Your task to perform on an android device: Go to eBay Image 0: 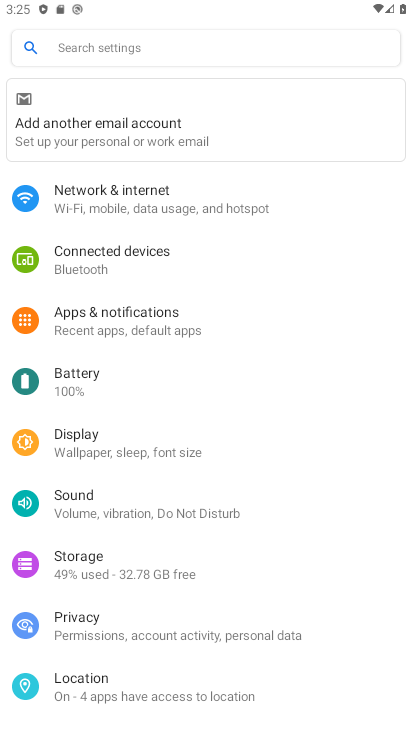
Step 0: press home button
Your task to perform on an android device: Go to eBay Image 1: 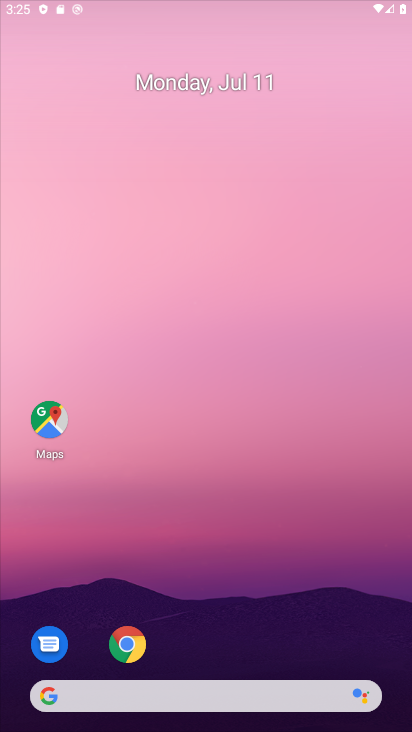
Step 1: drag from (264, 618) to (302, 282)
Your task to perform on an android device: Go to eBay Image 2: 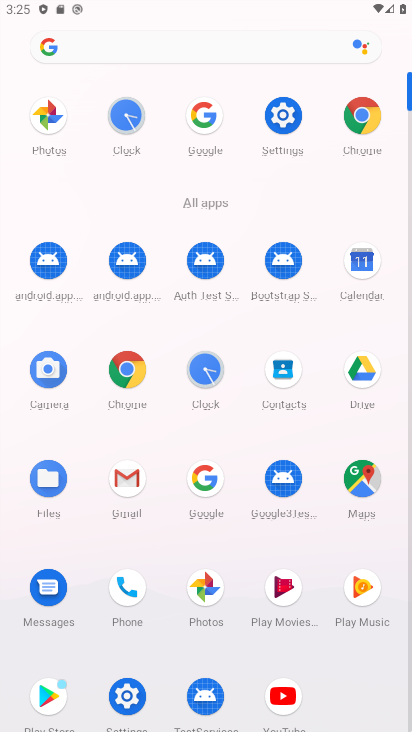
Step 2: click (375, 108)
Your task to perform on an android device: Go to eBay Image 3: 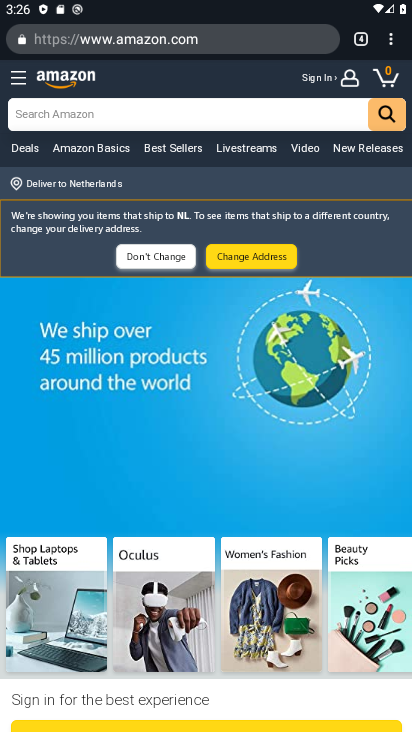
Step 3: click (394, 33)
Your task to perform on an android device: Go to eBay Image 4: 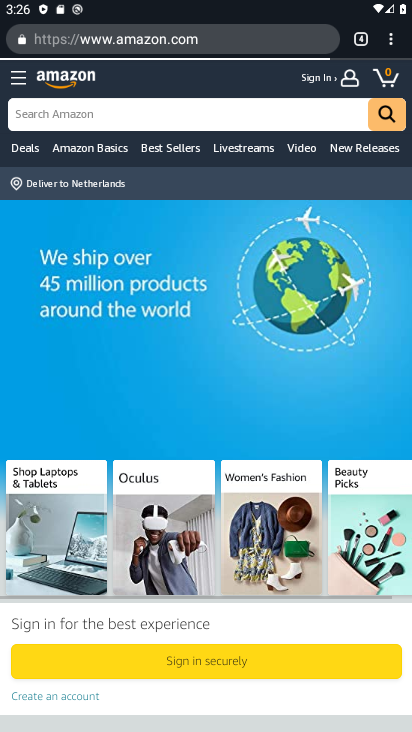
Step 4: click (394, 37)
Your task to perform on an android device: Go to eBay Image 5: 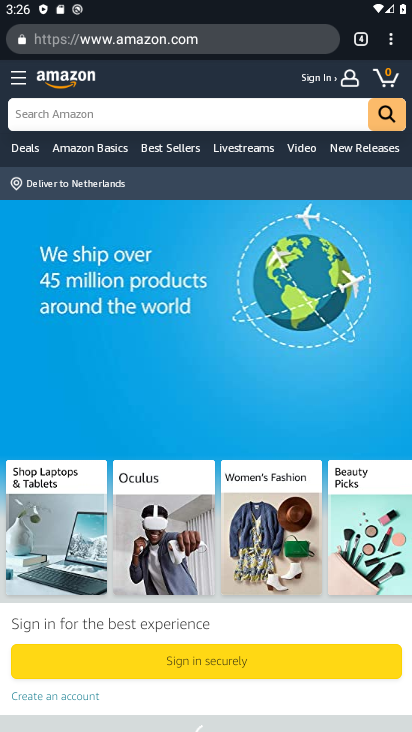
Step 5: click (394, 37)
Your task to perform on an android device: Go to eBay Image 6: 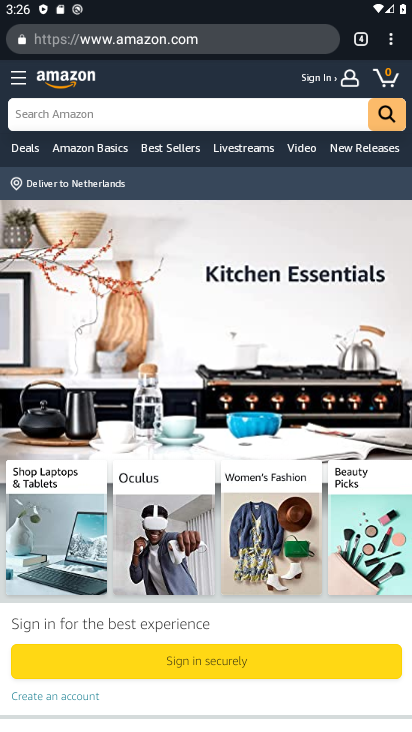
Step 6: click (384, 25)
Your task to perform on an android device: Go to eBay Image 7: 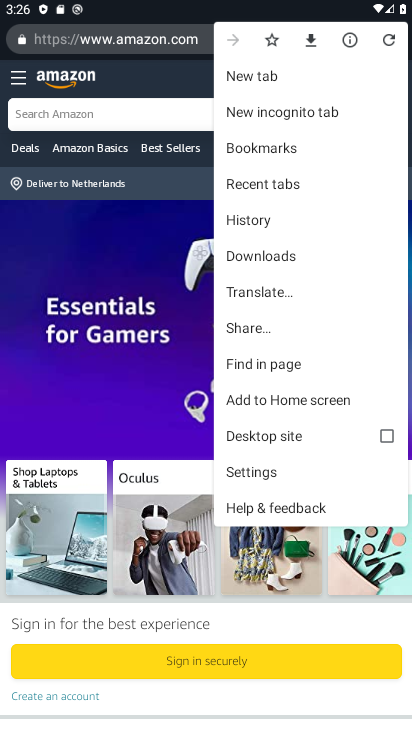
Step 7: click (260, 71)
Your task to perform on an android device: Go to eBay Image 8: 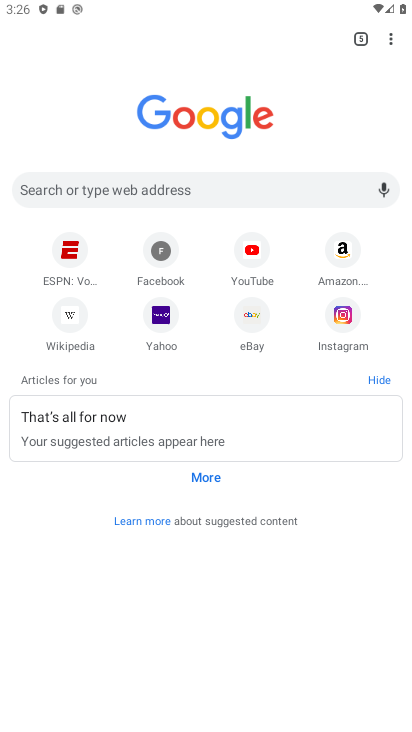
Step 8: click (244, 293)
Your task to perform on an android device: Go to eBay Image 9: 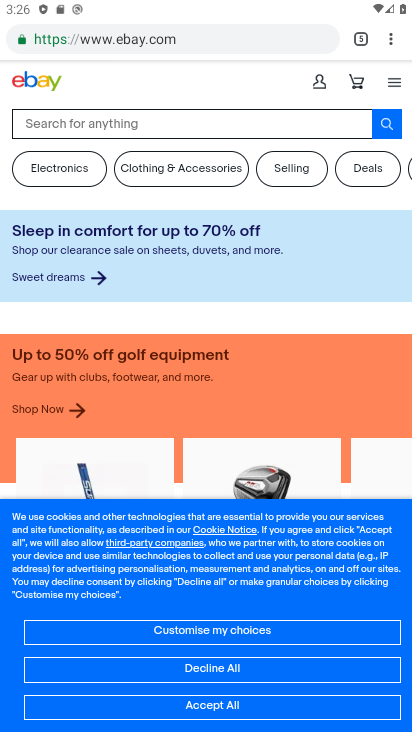
Step 9: task complete